Your task to perform on an android device: check out phone information Image 0: 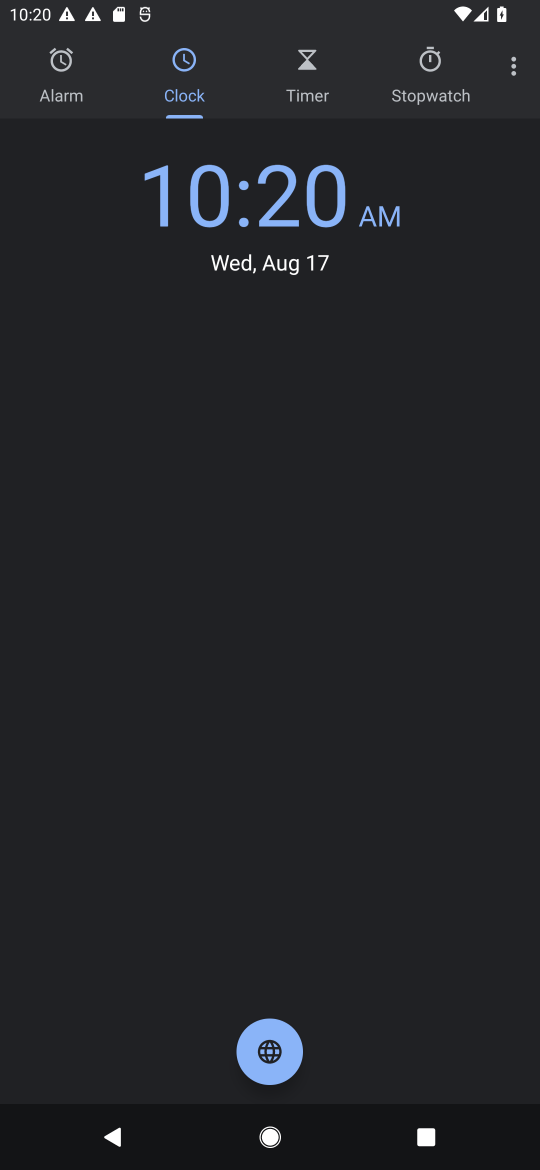
Step 0: press home button
Your task to perform on an android device: check out phone information Image 1: 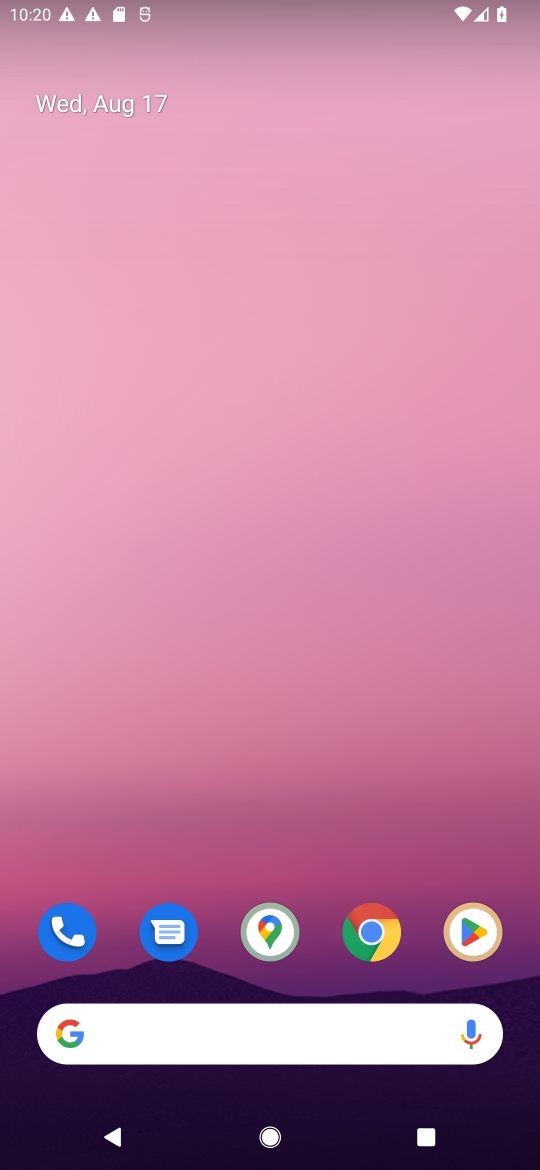
Step 1: drag from (305, 582) to (289, 332)
Your task to perform on an android device: check out phone information Image 2: 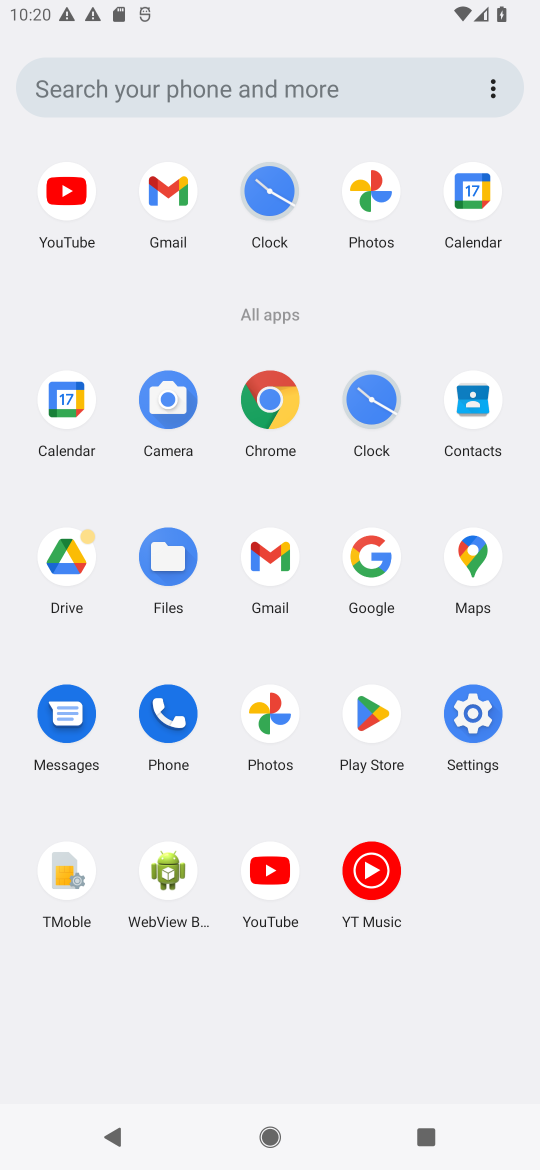
Step 2: click (467, 715)
Your task to perform on an android device: check out phone information Image 3: 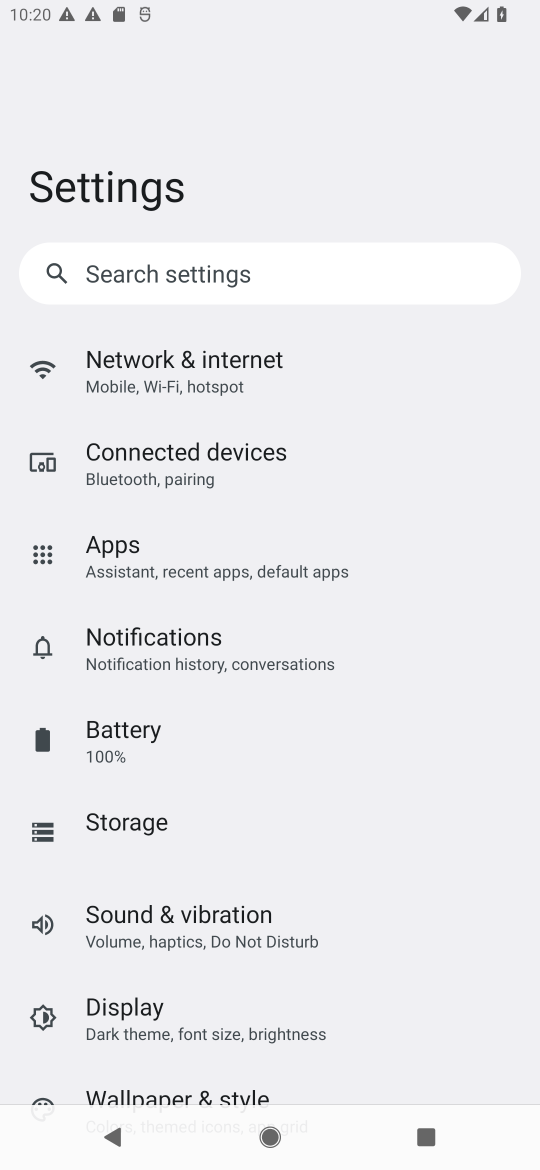
Step 3: drag from (263, 997) to (254, 303)
Your task to perform on an android device: check out phone information Image 4: 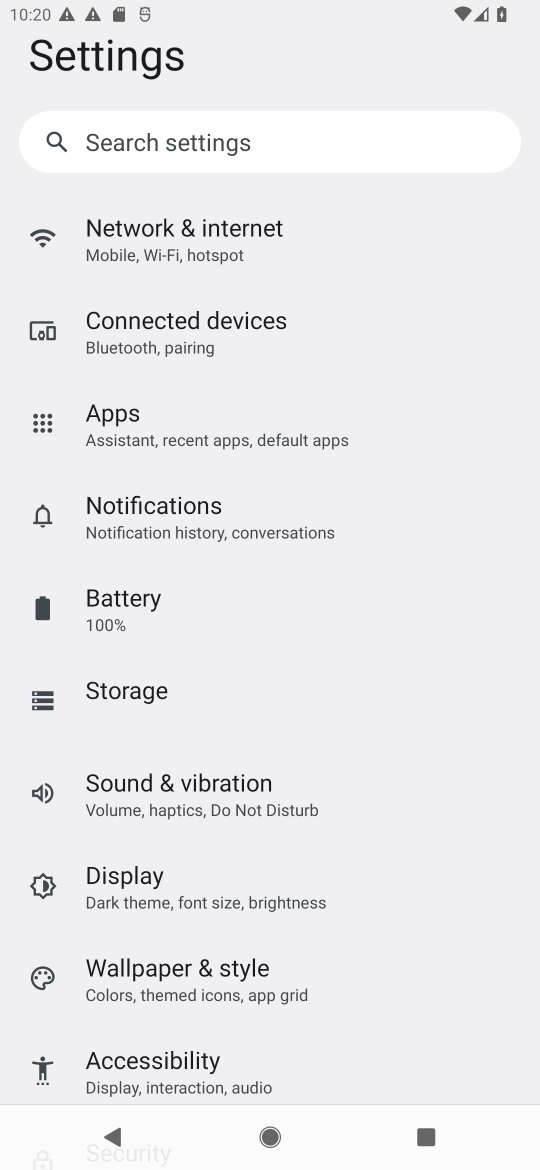
Step 4: drag from (233, 938) to (233, 308)
Your task to perform on an android device: check out phone information Image 5: 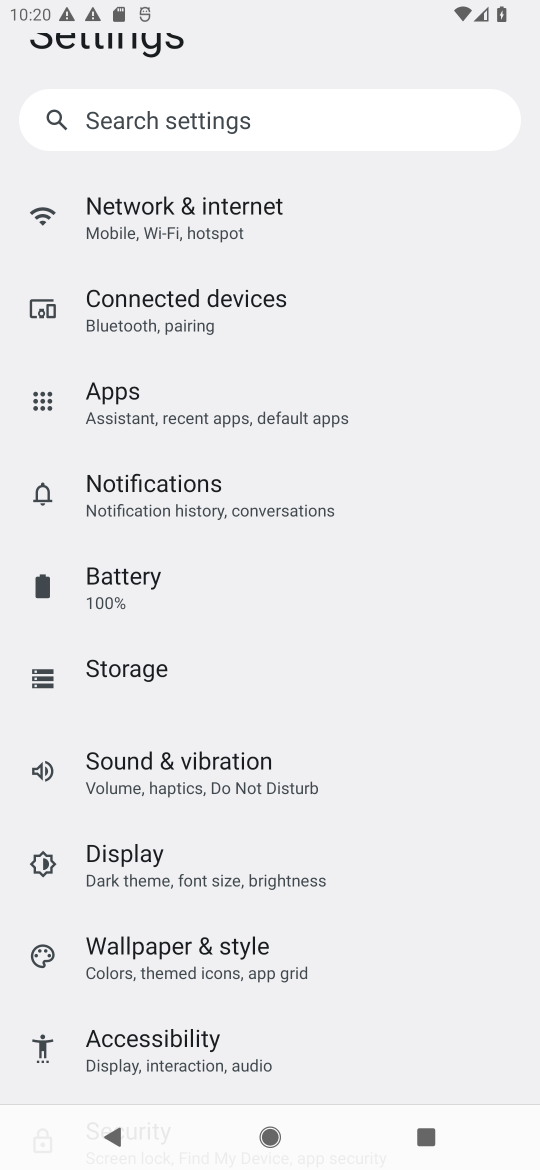
Step 5: drag from (238, 1005) to (241, 312)
Your task to perform on an android device: check out phone information Image 6: 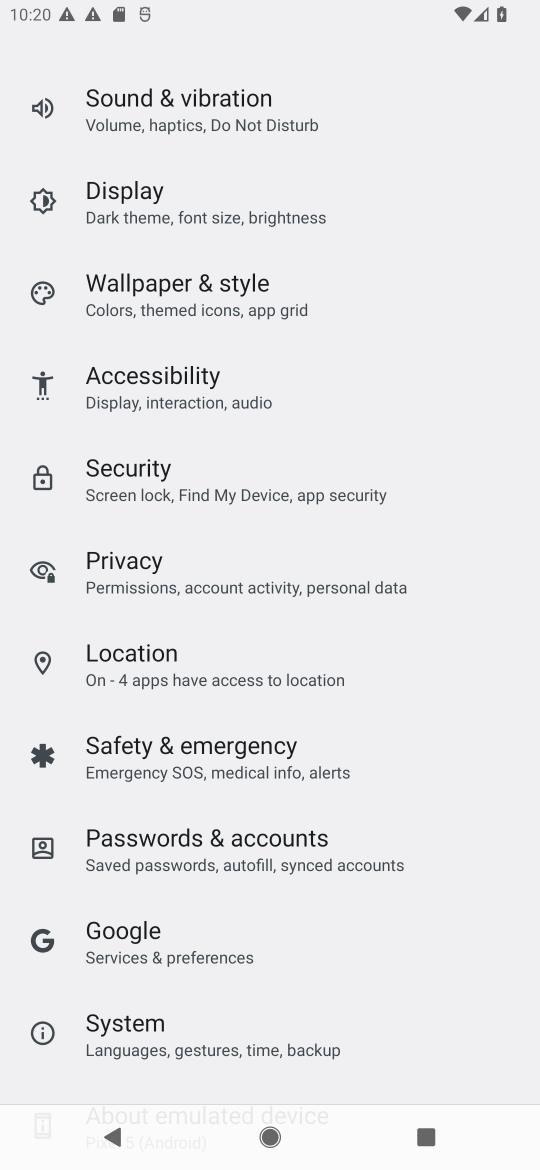
Step 6: drag from (216, 945) to (216, 275)
Your task to perform on an android device: check out phone information Image 7: 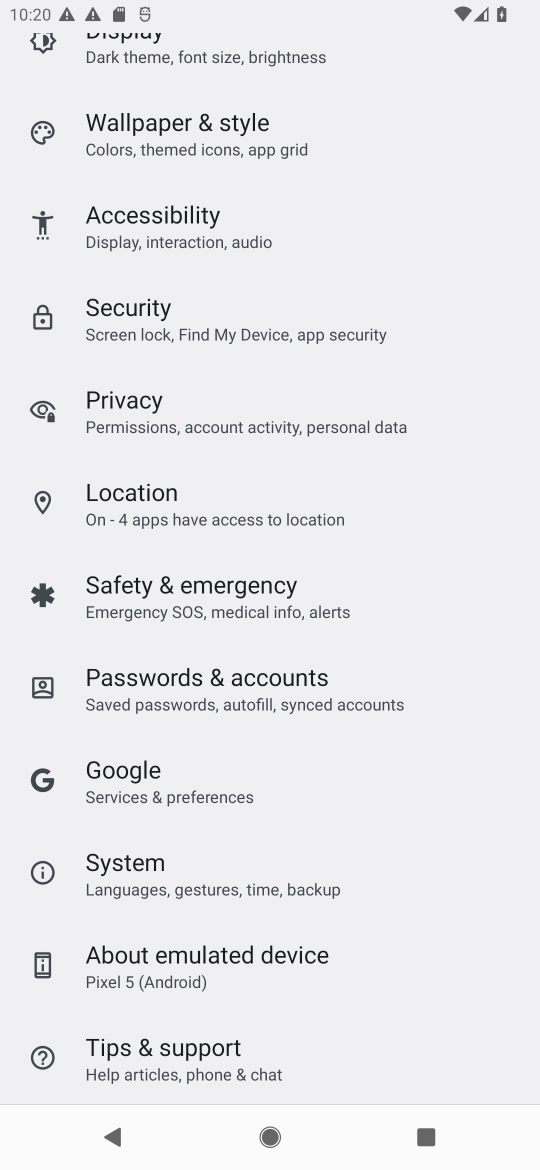
Step 7: click (245, 980)
Your task to perform on an android device: check out phone information Image 8: 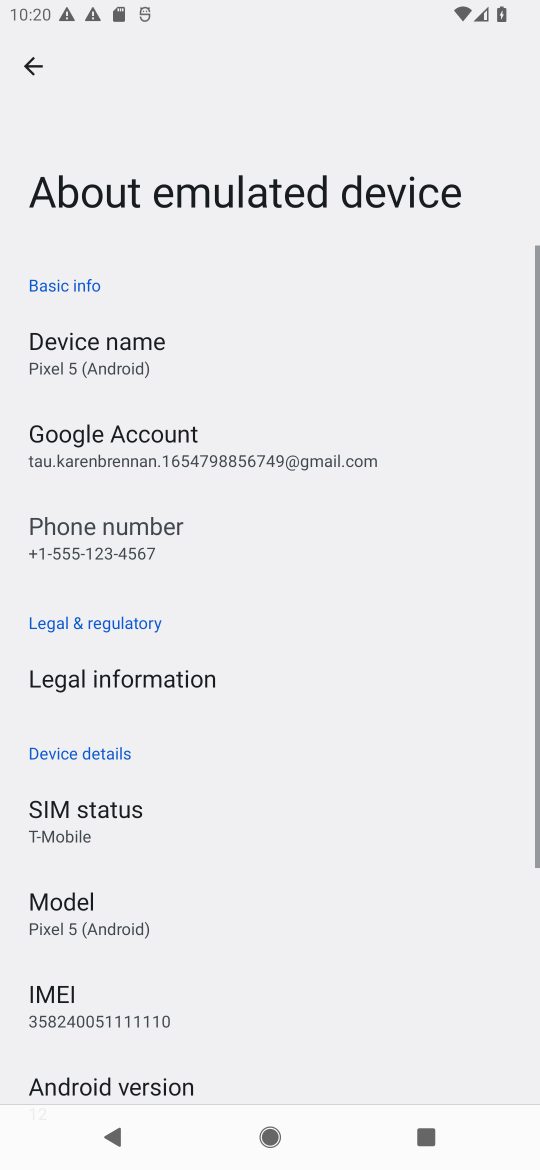
Step 8: task complete